Your task to perform on an android device: What's the weather today? Image 0: 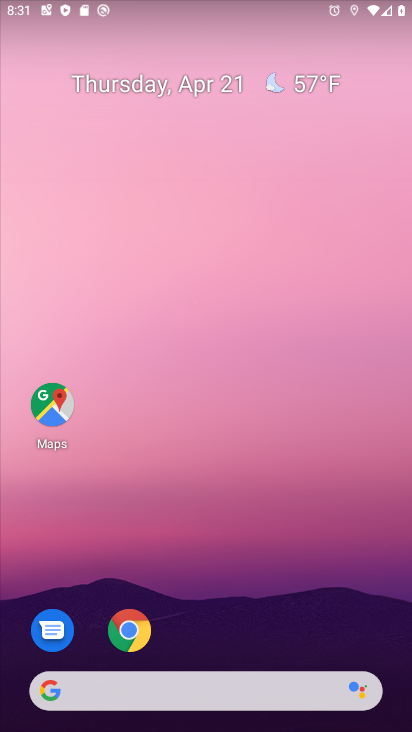
Step 0: click (182, 693)
Your task to perform on an android device: What's the weather today? Image 1: 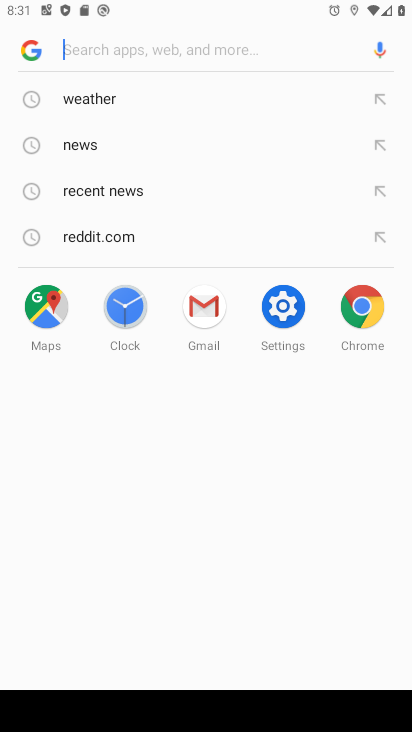
Step 1: click (175, 97)
Your task to perform on an android device: What's the weather today? Image 2: 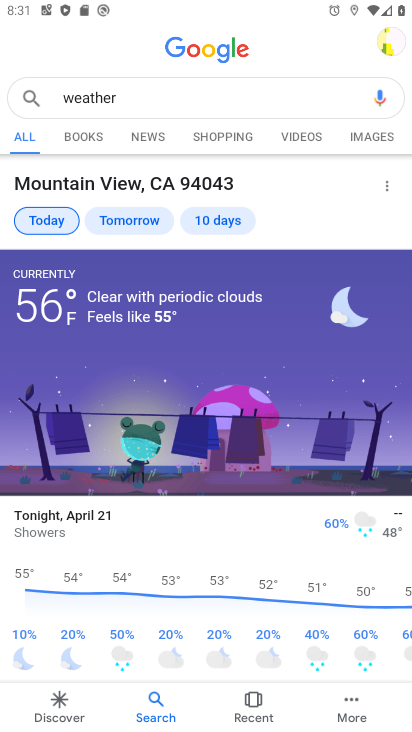
Step 2: task complete